Your task to perform on an android device: Find coffee shops on Maps Image 0: 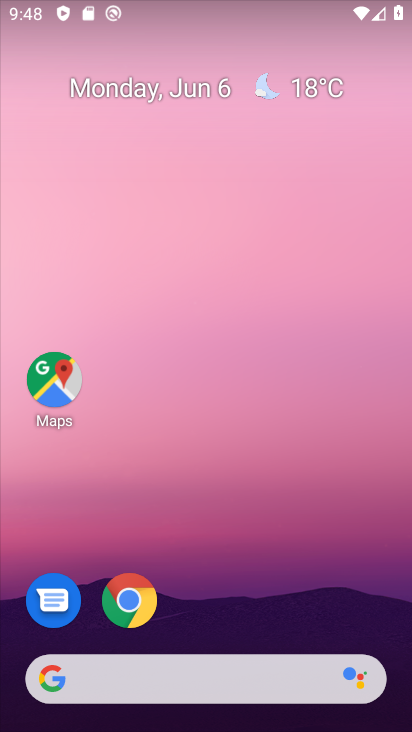
Step 0: drag from (236, 571) to (183, 29)
Your task to perform on an android device: Find coffee shops on Maps Image 1: 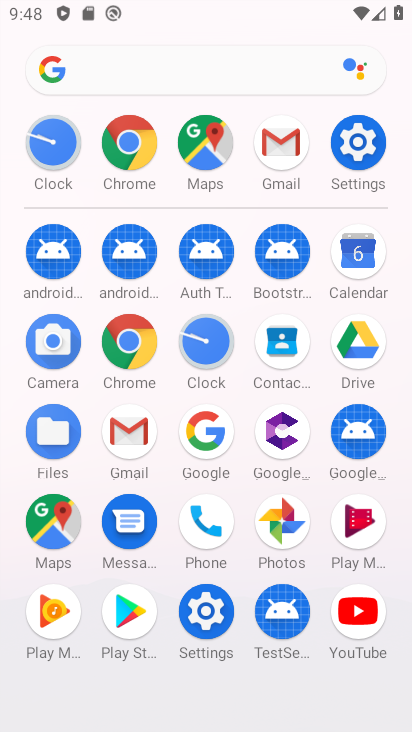
Step 1: click (47, 519)
Your task to perform on an android device: Find coffee shops on Maps Image 2: 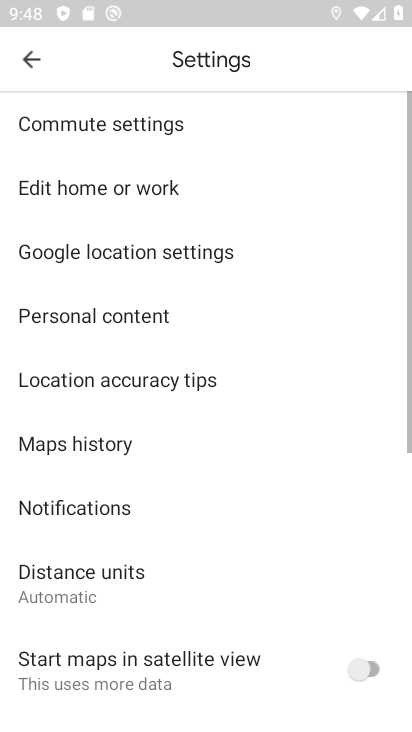
Step 2: click (27, 51)
Your task to perform on an android device: Find coffee shops on Maps Image 3: 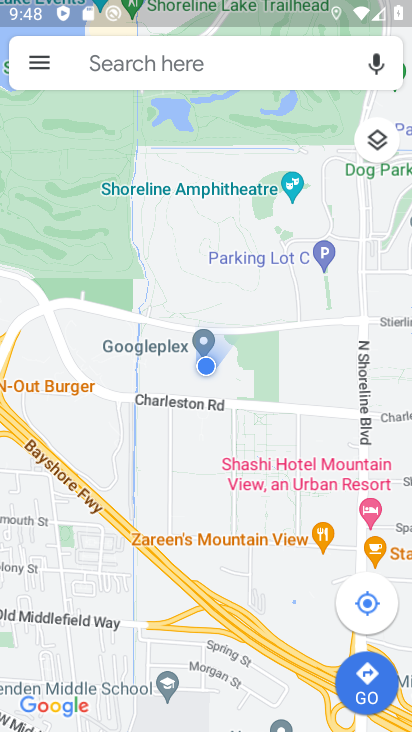
Step 3: click (217, 60)
Your task to perform on an android device: Find coffee shops on Maps Image 4: 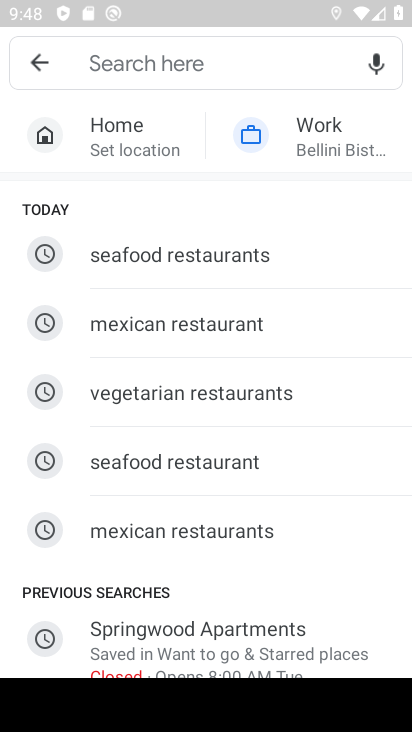
Step 4: type "coffee "
Your task to perform on an android device: Find coffee shops on Maps Image 5: 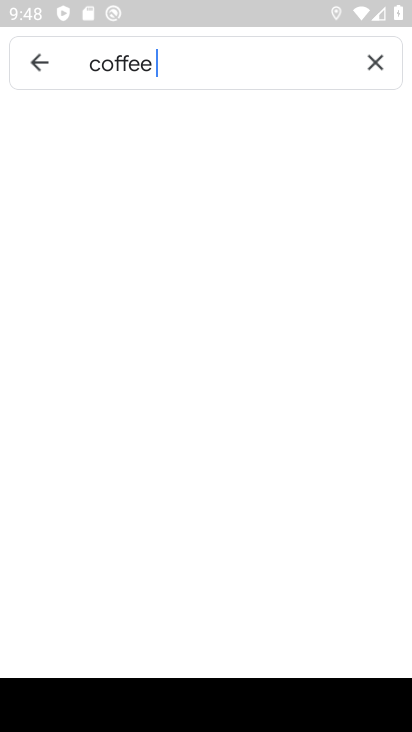
Step 5: type ""
Your task to perform on an android device: Find coffee shops on Maps Image 6: 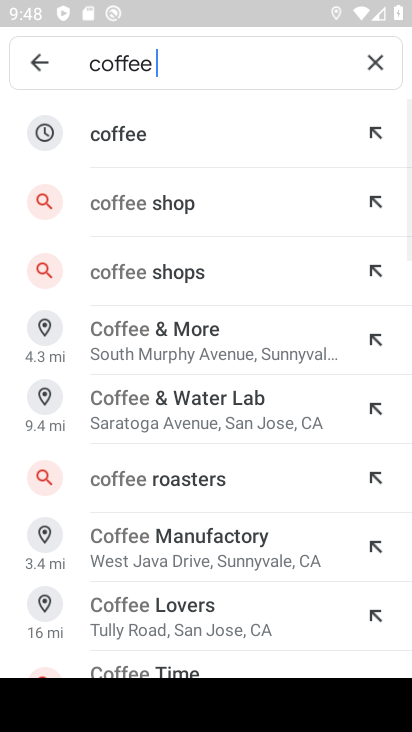
Step 6: click (155, 201)
Your task to perform on an android device: Find coffee shops on Maps Image 7: 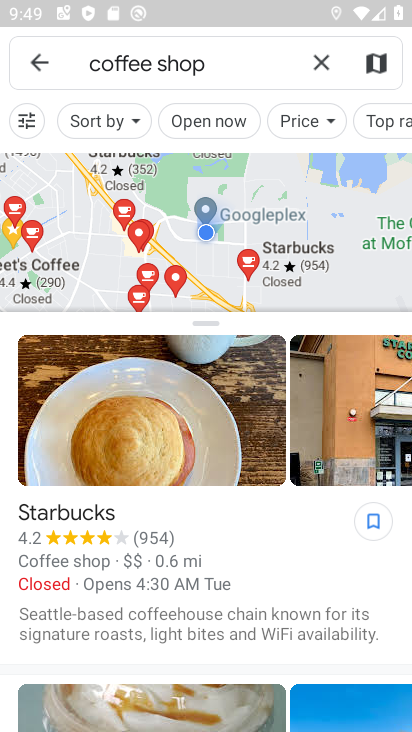
Step 7: task complete